Your task to perform on an android device: Turn off the flashlight Image 0: 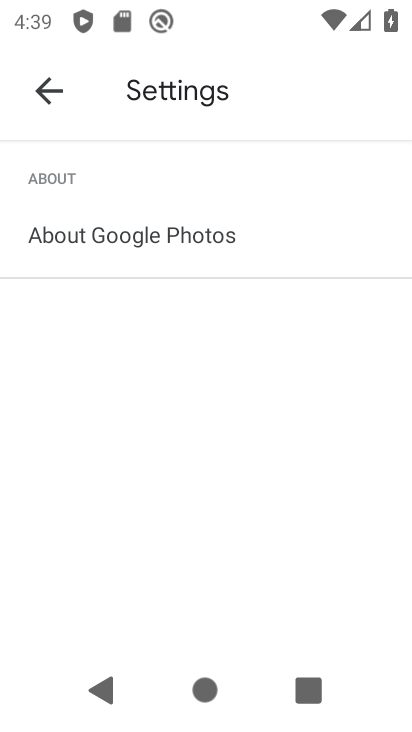
Step 0: press home button
Your task to perform on an android device: Turn off the flashlight Image 1: 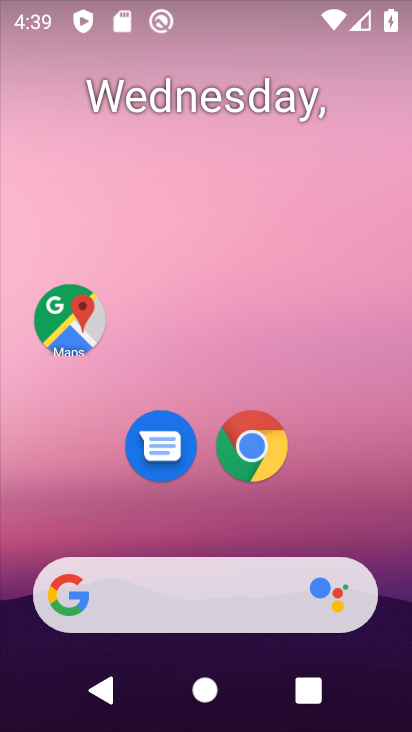
Step 1: drag from (316, 518) to (331, 0)
Your task to perform on an android device: Turn off the flashlight Image 2: 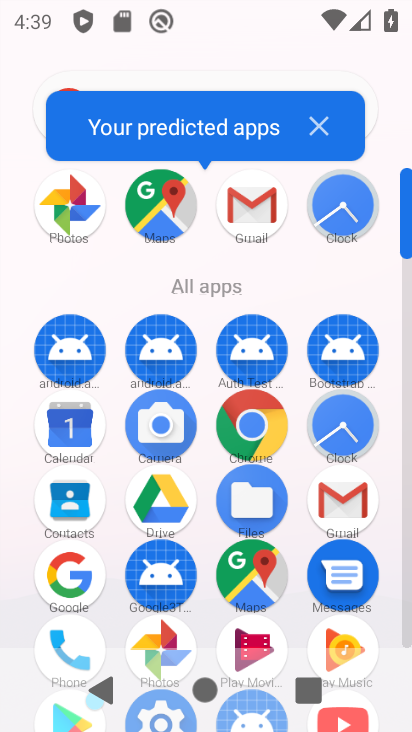
Step 2: drag from (109, 604) to (150, 147)
Your task to perform on an android device: Turn off the flashlight Image 3: 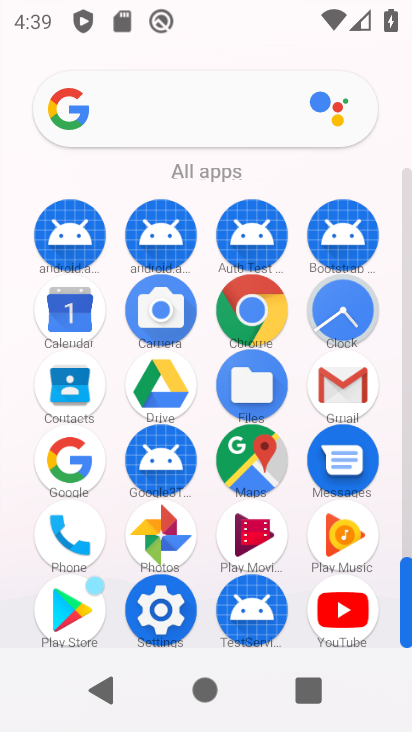
Step 3: click (168, 615)
Your task to perform on an android device: Turn off the flashlight Image 4: 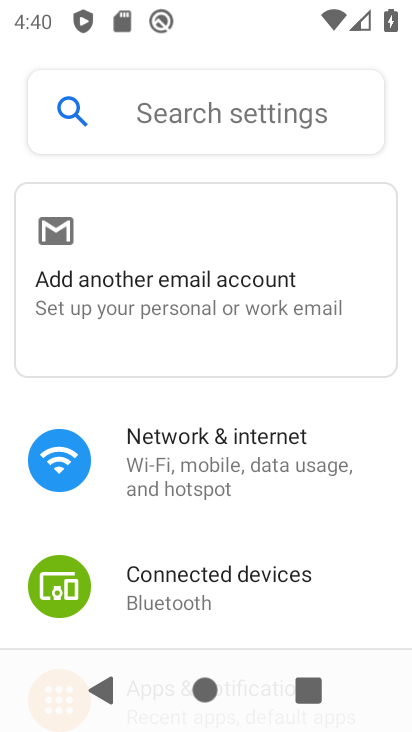
Step 4: task complete